Your task to perform on an android device: Open Google Image 0: 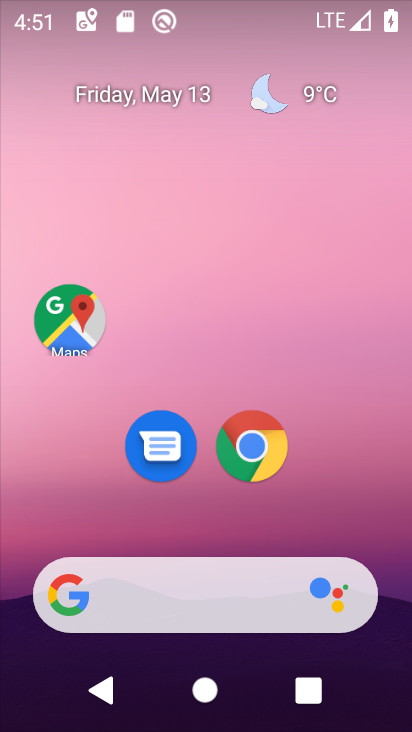
Step 0: drag from (130, 524) to (195, 38)
Your task to perform on an android device: Open Google Image 1: 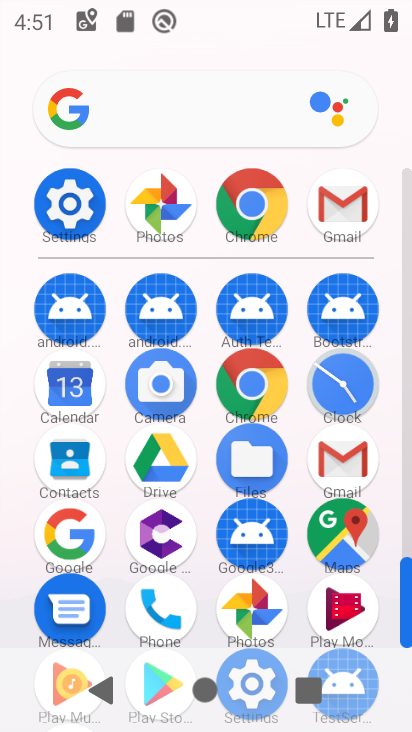
Step 1: click (59, 551)
Your task to perform on an android device: Open Google Image 2: 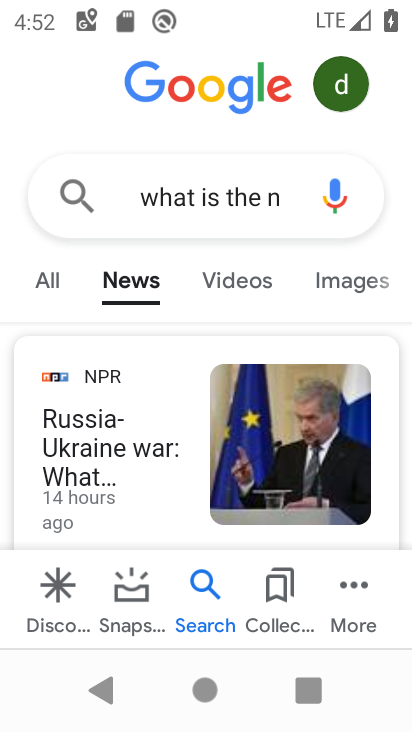
Step 2: task complete